Your task to perform on an android device: turn pop-ups off in chrome Image 0: 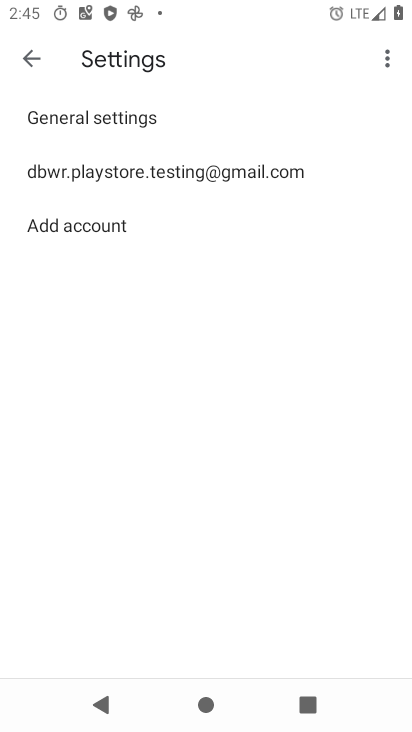
Step 0: press home button
Your task to perform on an android device: turn pop-ups off in chrome Image 1: 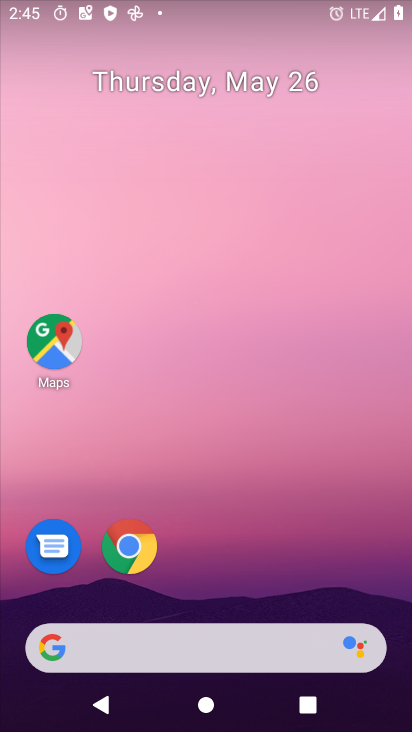
Step 1: click (127, 540)
Your task to perform on an android device: turn pop-ups off in chrome Image 2: 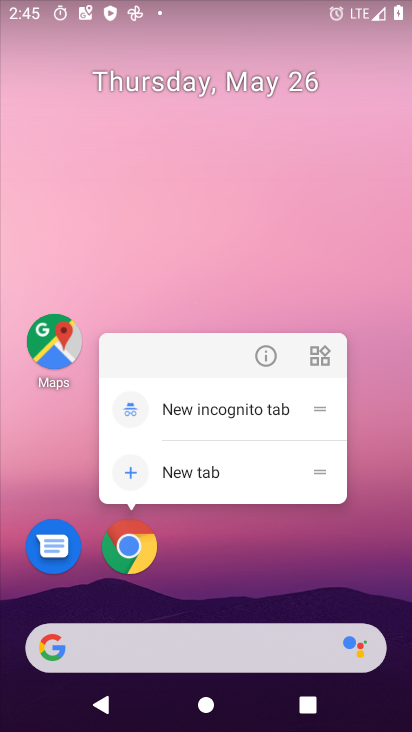
Step 2: click (137, 547)
Your task to perform on an android device: turn pop-ups off in chrome Image 3: 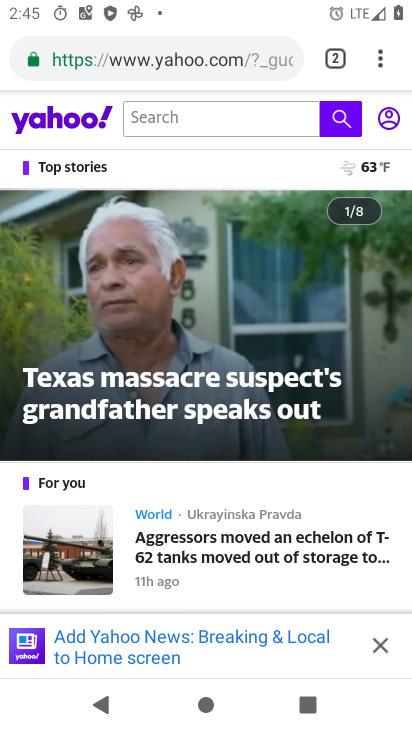
Step 3: click (372, 53)
Your task to perform on an android device: turn pop-ups off in chrome Image 4: 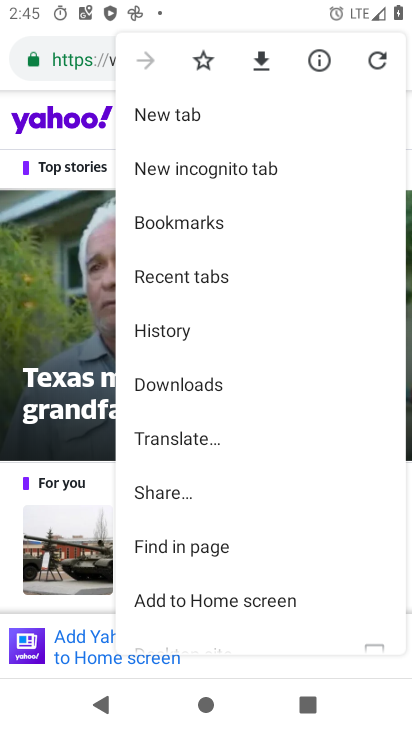
Step 4: drag from (221, 563) to (234, 270)
Your task to perform on an android device: turn pop-ups off in chrome Image 5: 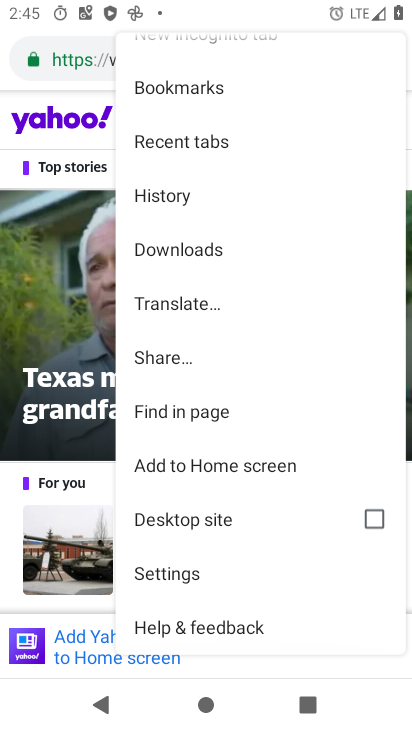
Step 5: click (175, 580)
Your task to perform on an android device: turn pop-ups off in chrome Image 6: 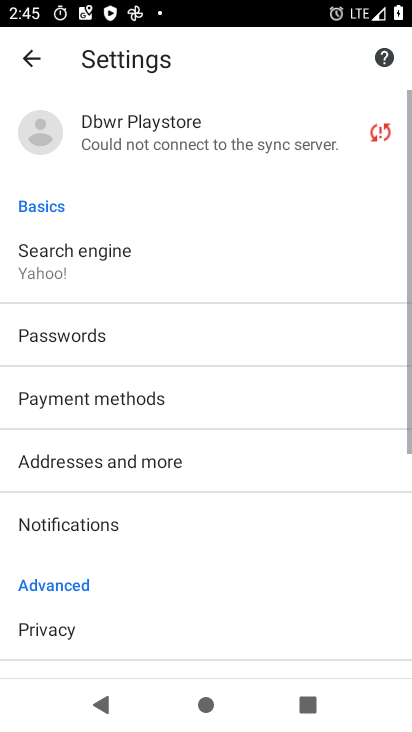
Step 6: drag from (192, 549) to (249, 160)
Your task to perform on an android device: turn pop-ups off in chrome Image 7: 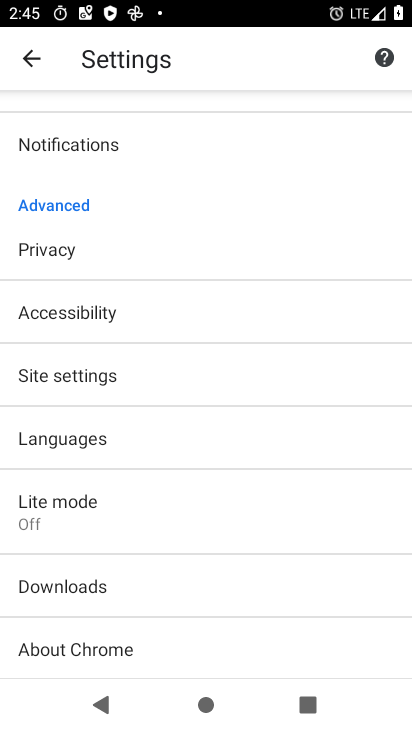
Step 7: click (105, 385)
Your task to perform on an android device: turn pop-ups off in chrome Image 8: 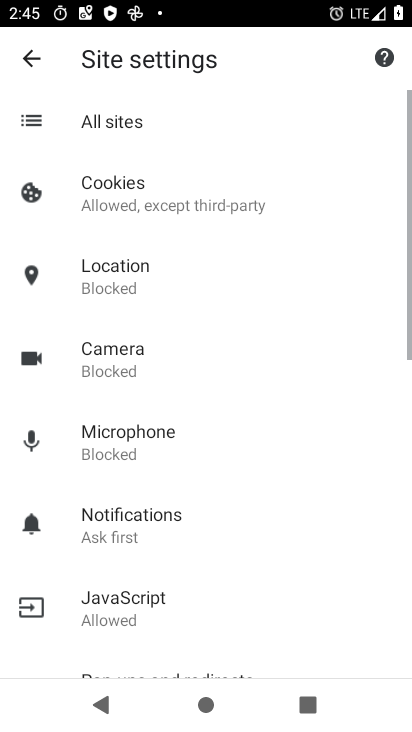
Step 8: drag from (152, 626) to (183, 241)
Your task to perform on an android device: turn pop-ups off in chrome Image 9: 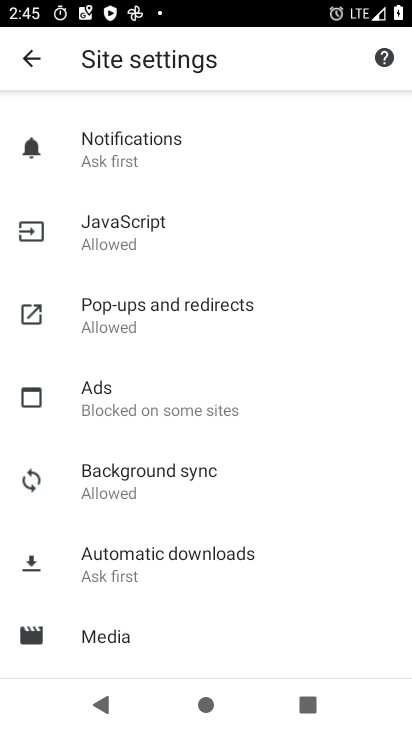
Step 9: click (152, 306)
Your task to perform on an android device: turn pop-ups off in chrome Image 10: 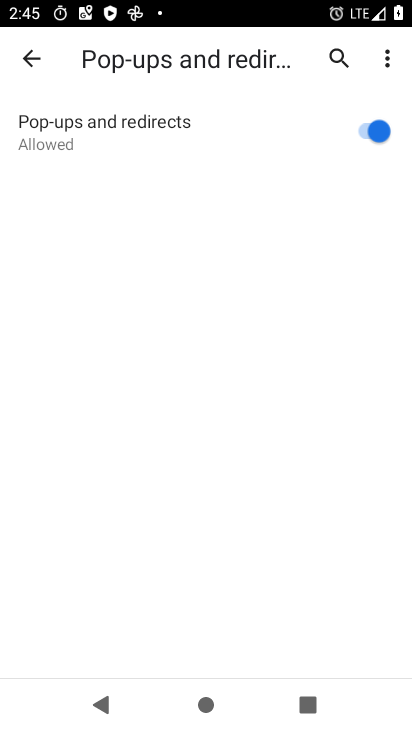
Step 10: click (389, 141)
Your task to perform on an android device: turn pop-ups off in chrome Image 11: 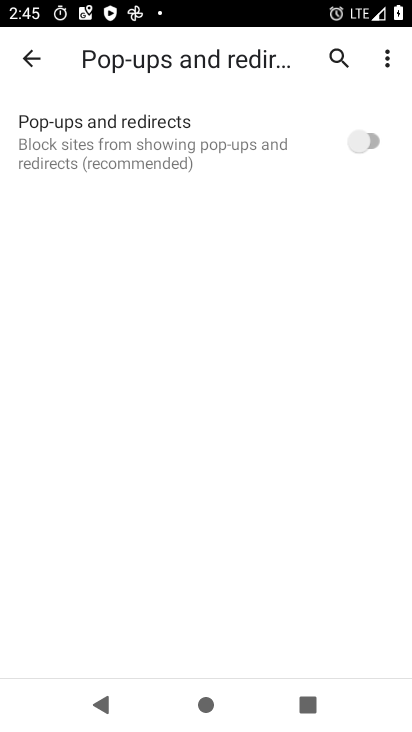
Step 11: task complete